Your task to perform on an android device: Open the calendar app, open the side menu, and click the "Day" option Image 0: 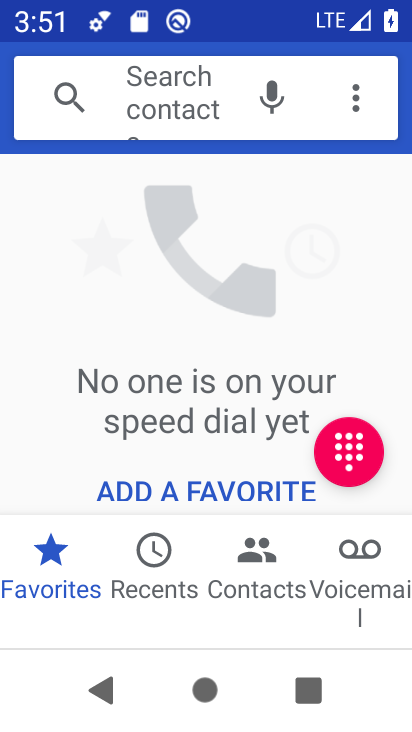
Step 0: press home button
Your task to perform on an android device: Open the calendar app, open the side menu, and click the "Day" option Image 1: 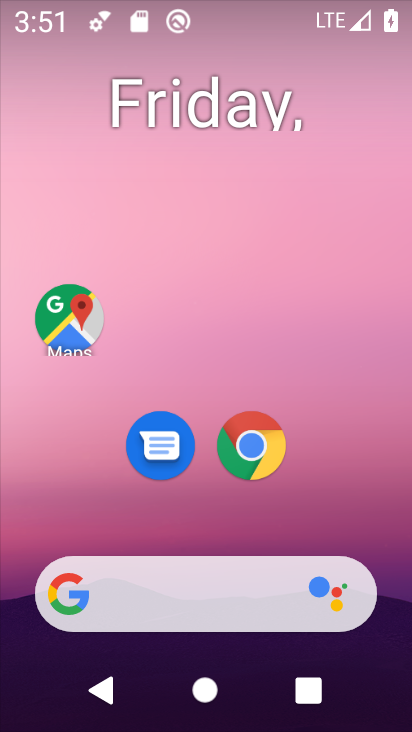
Step 1: drag from (313, 528) to (242, 208)
Your task to perform on an android device: Open the calendar app, open the side menu, and click the "Day" option Image 2: 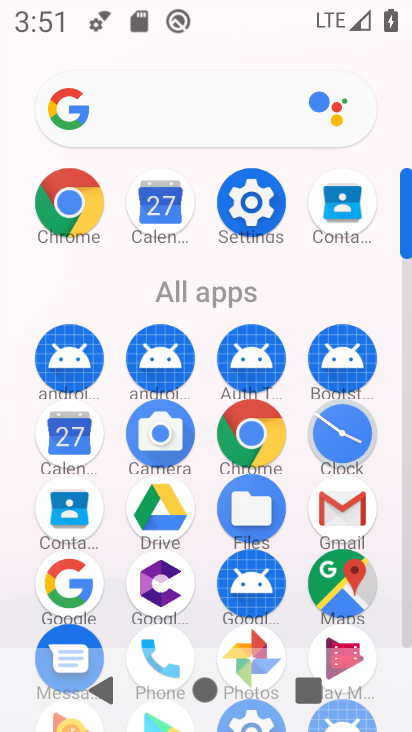
Step 2: click (170, 197)
Your task to perform on an android device: Open the calendar app, open the side menu, and click the "Day" option Image 3: 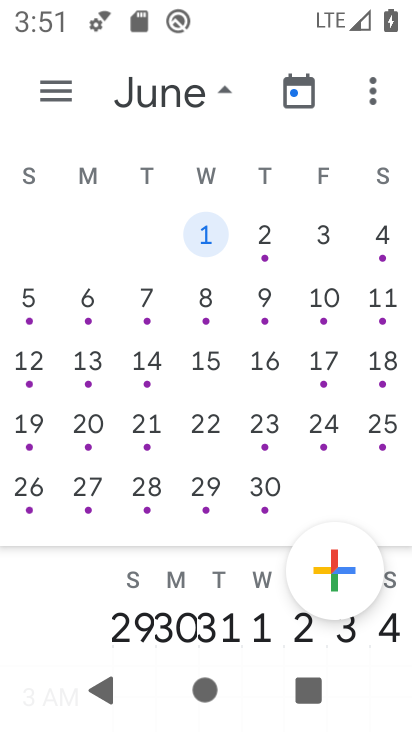
Step 3: click (63, 100)
Your task to perform on an android device: Open the calendar app, open the side menu, and click the "Day" option Image 4: 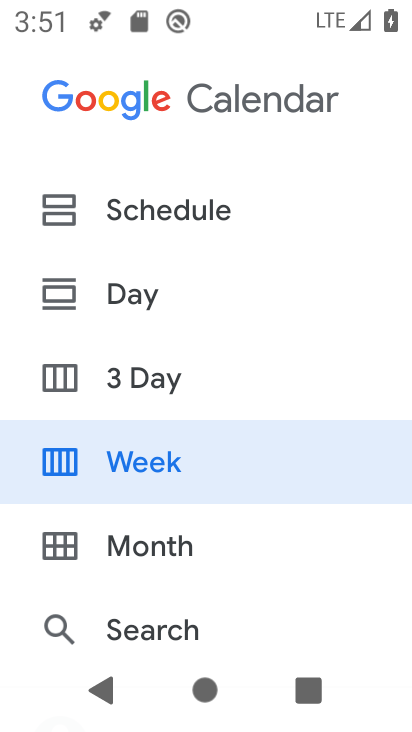
Step 4: click (144, 299)
Your task to perform on an android device: Open the calendar app, open the side menu, and click the "Day" option Image 5: 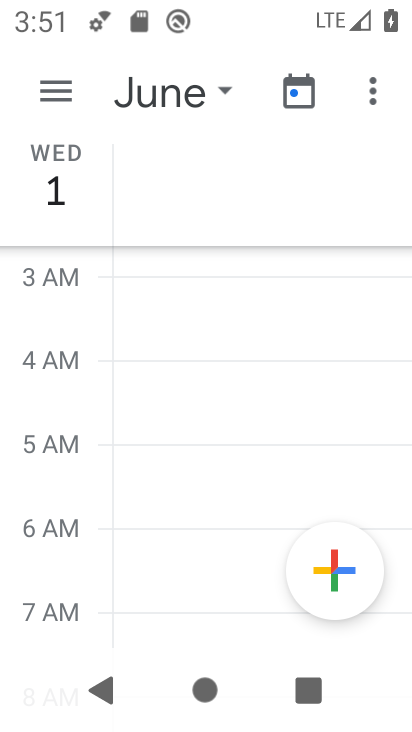
Step 5: task complete